Your task to perform on an android device: turn off wifi Image 0: 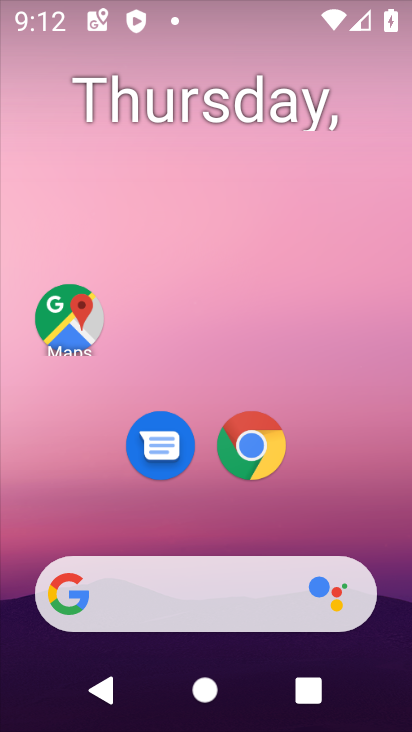
Step 0: click (404, 357)
Your task to perform on an android device: turn off wifi Image 1: 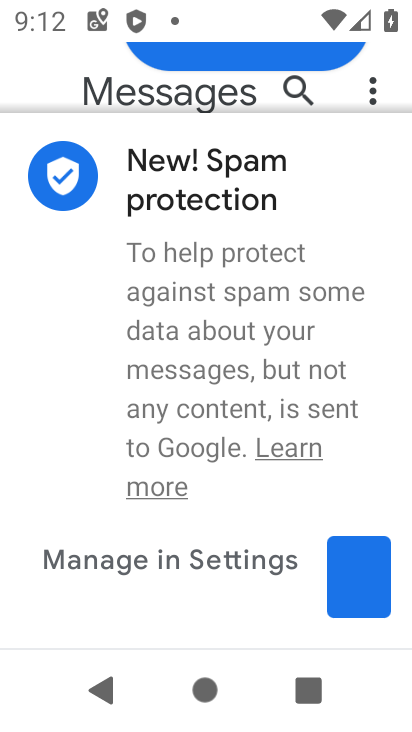
Step 1: drag from (202, 496) to (258, 92)
Your task to perform on an android device: turn off wifi Image 2: 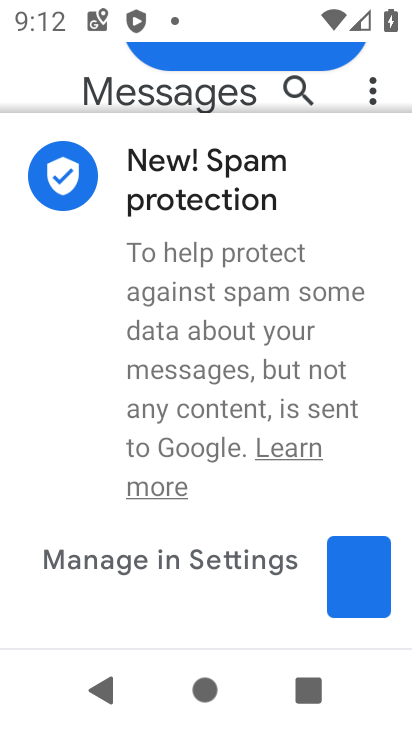
Step 2: press home button
Your task to perform on an android device: turn off wifi Image 3: 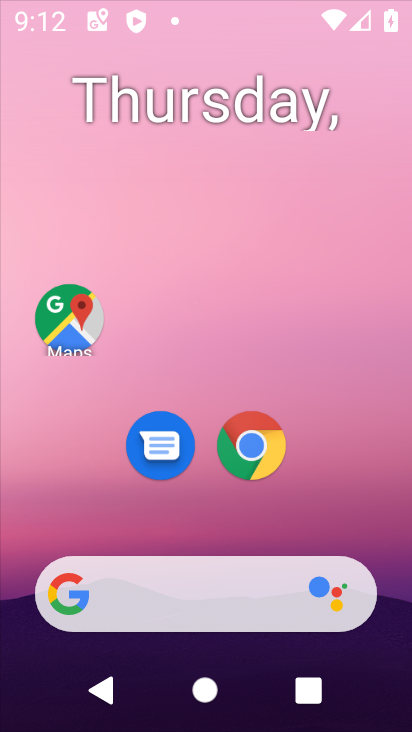
Step 3: drag from (185, 498) to (274, 32)
Your task to perform on an android device: turn off wifi Image 4: 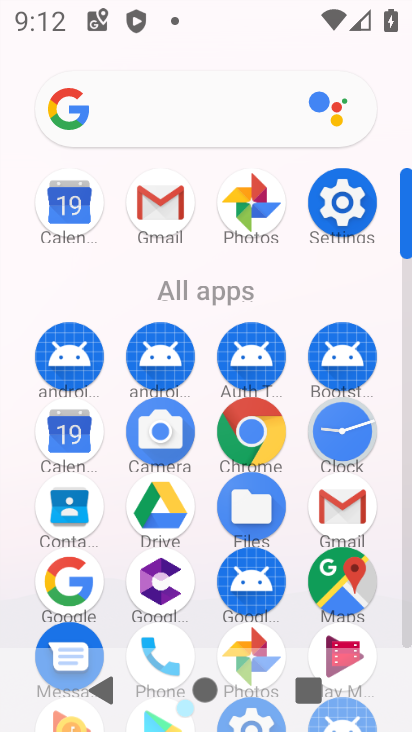
Step 4: click (348, 198)
Your task to perform on an android device: turn off wifi Image 5: 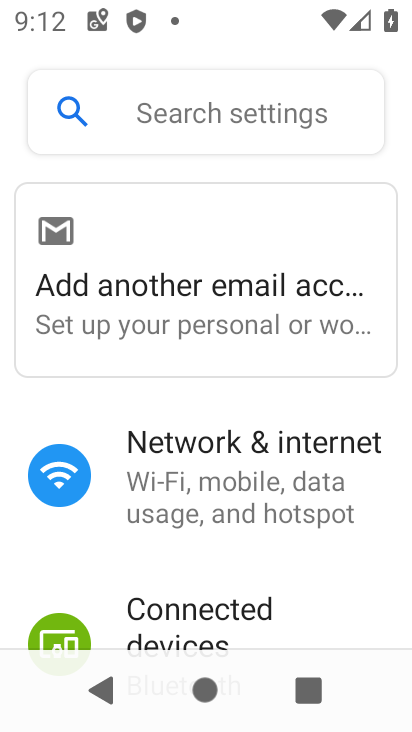
Step 5: click (198, 452)
Your task to perform on an android device: turn off wifi Image 6: 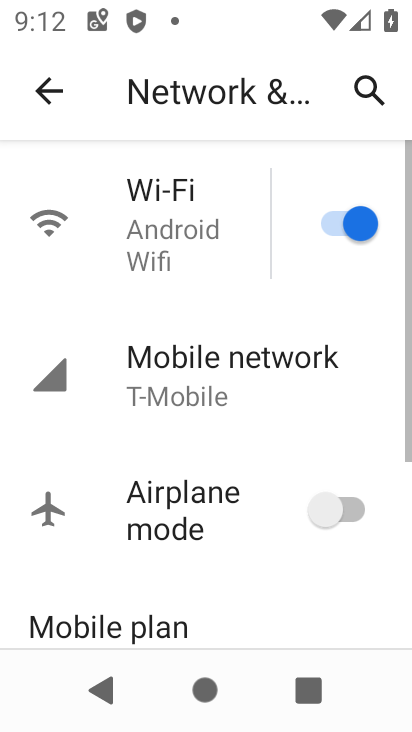
Step 6: click (215, 215)
Your task to perform on an android device: turn off wifi Image 7: 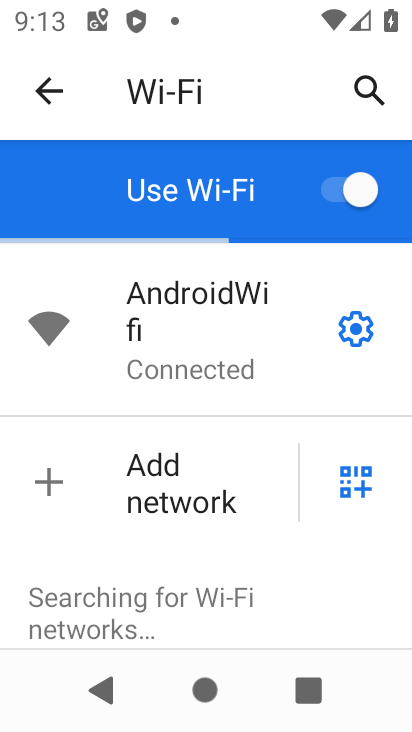
Step 7: click (338, 181)
Your task to perform on an android device: turn off wifi Image 8: 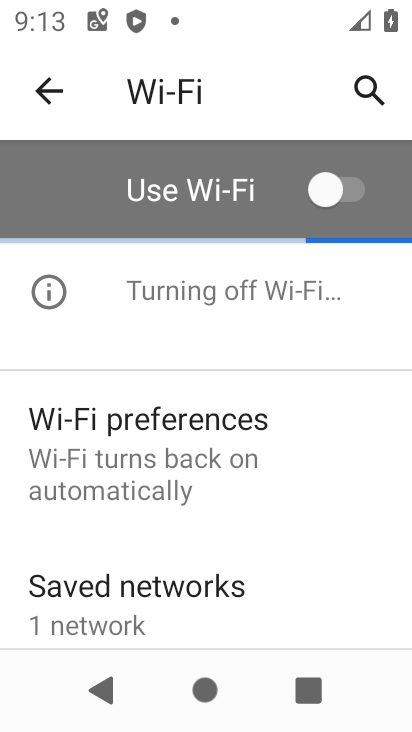
Step 8: task complete